Your task to perform on an android device: clear all cookies in the chrome app Image 0: 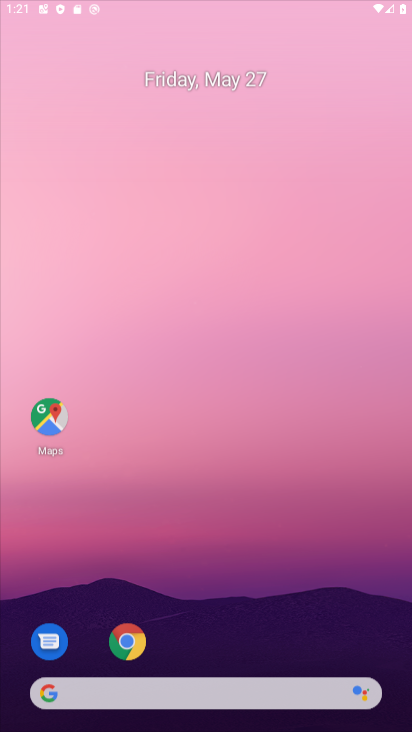
Step 0: click (171, 27)
Your task to perform on an android device: clear all cookies in the chrome app Image 1: 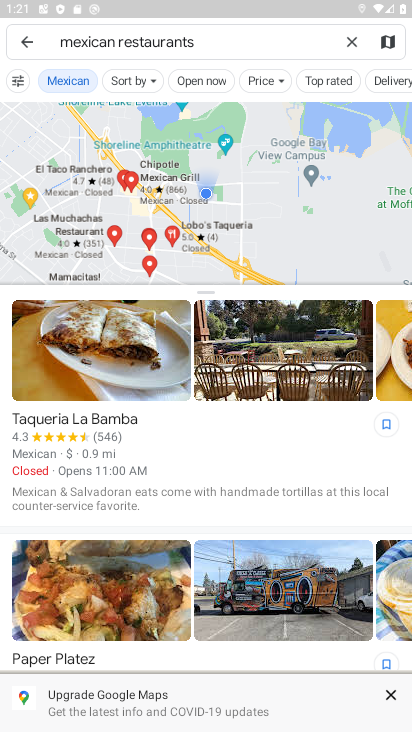
Step 1: press back button
Your task to perform on an android device: clear all cookies in the chrome app Image 2: 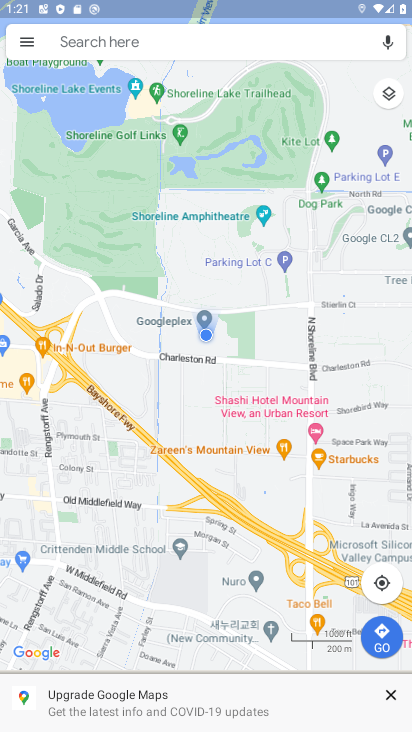
Step 2: press back button
Your task to perform on an android device: clear all cookies in the chrome app Image 3: 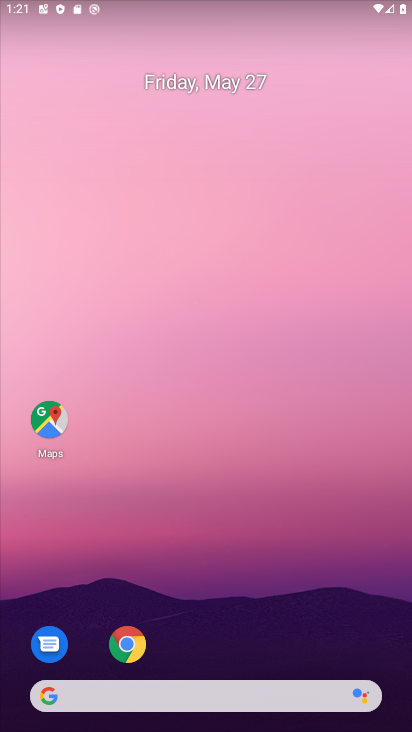
Step 3: drag from (210, 574) to (184, 12)
Your task to perform on an android device: clear all cookies in the chrome app Image 4: 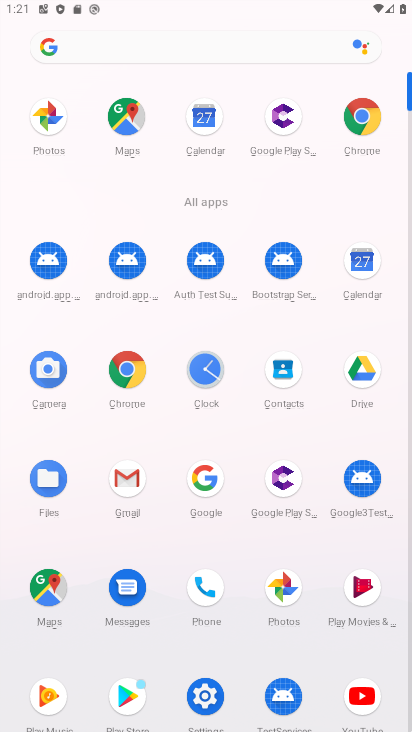
Step 4: click (362, 114)
Your task to perform on an android device: clear all cookies in the chrome app Image 5: 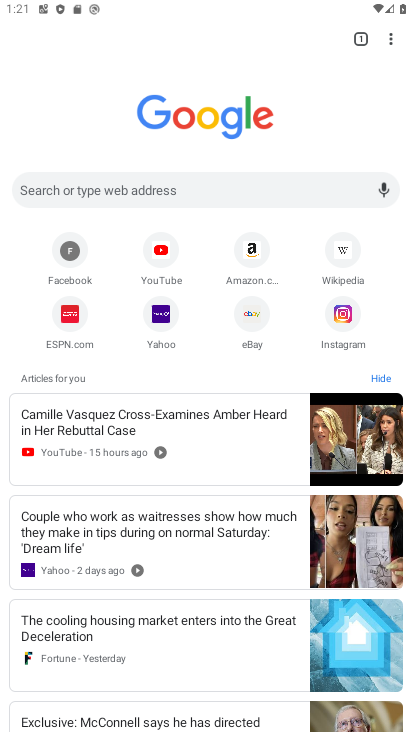
Step 5: drag from (389, 40) to (252, 328)
Your task to perform on an android device: clear all cookies in the chrome app Image 6: 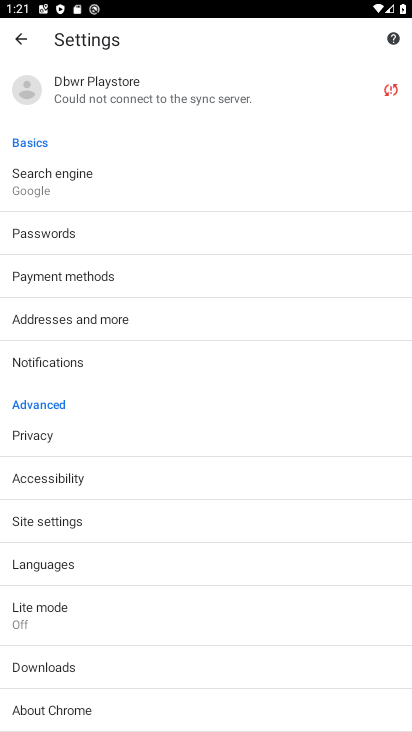
Step 6: drag from (175, 606) to (221, 184)
Your task to perform on an android device: clear all cookies in the chrome app Image 7: 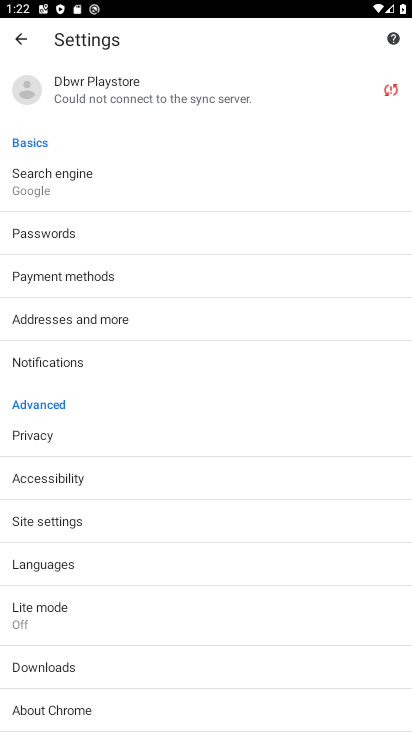
Step 7: click (51, 436)
Your task to perform on an android device: clear all cookies in the chrome app Image 8: 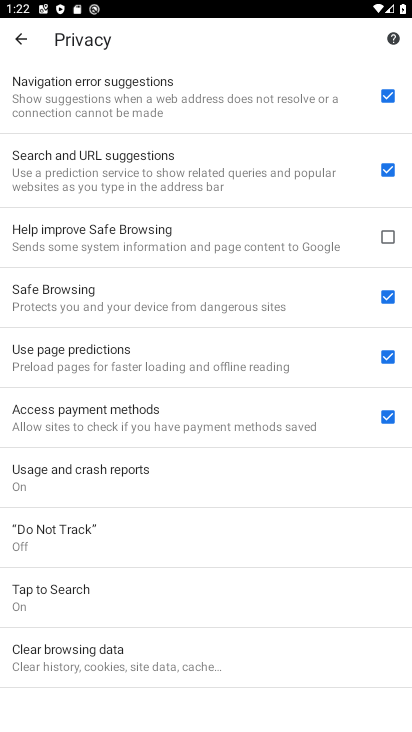
Step 8: drag from (272, 619) to (232, 138)
Your task to perform on an android device: clear all cookies in the chrome app Image 9: 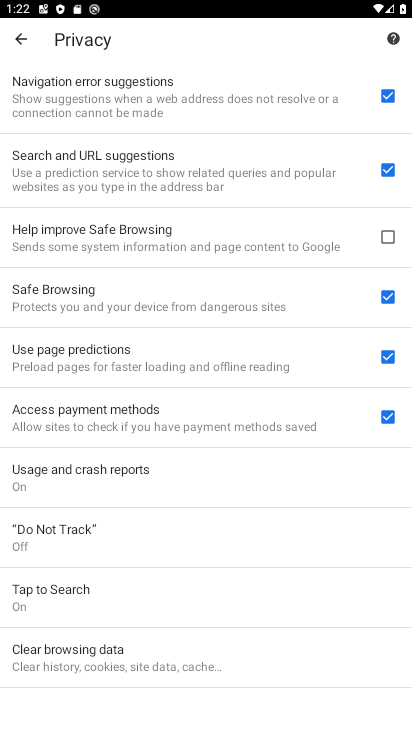
Step 9: click (122, 651)
Your task to perform on an android device: clear all cookies in the chrome app Image 10: 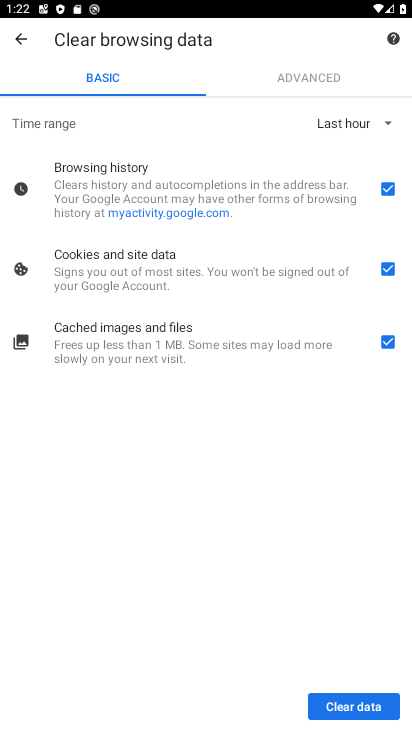
Step 10: click (383, 187)
Your task to perform on an android device: clear all cookies in the chrome app Image 11: 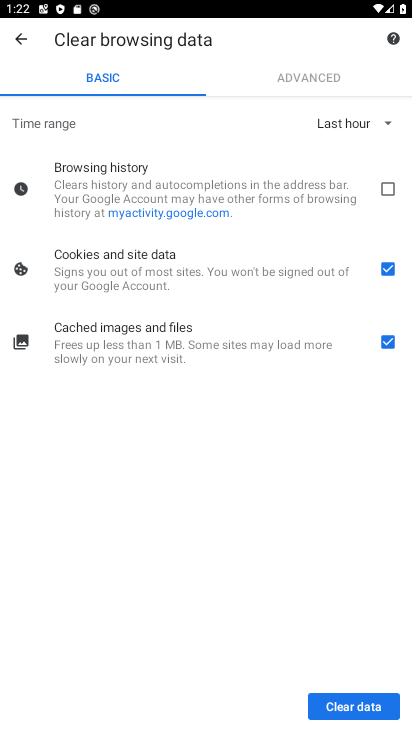
Step 11: click (390, 342)
Your task to perform on an android device: clear all cookies in the chrome app Image 12: 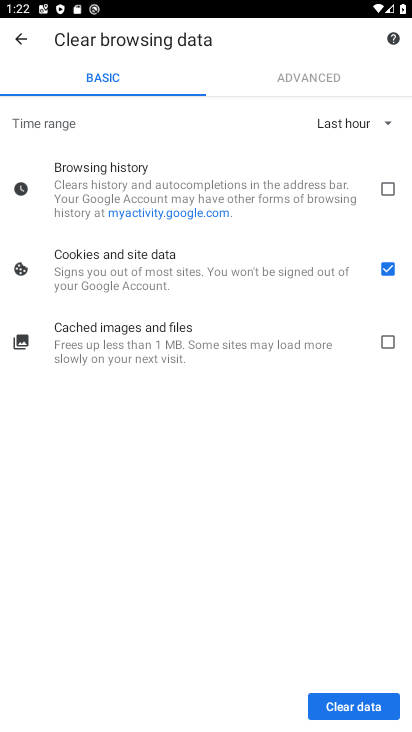
Step 12: click (362, 701)
Your task to perform on an android device: clear all cookies in the chrome app Image 13: 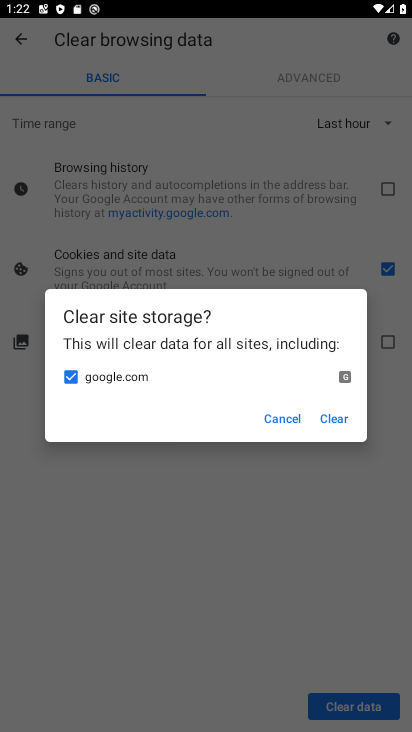
Step 13: click (336, 419)
Your task to perform on an android device: clear all cookies in the chrome app Image 14: 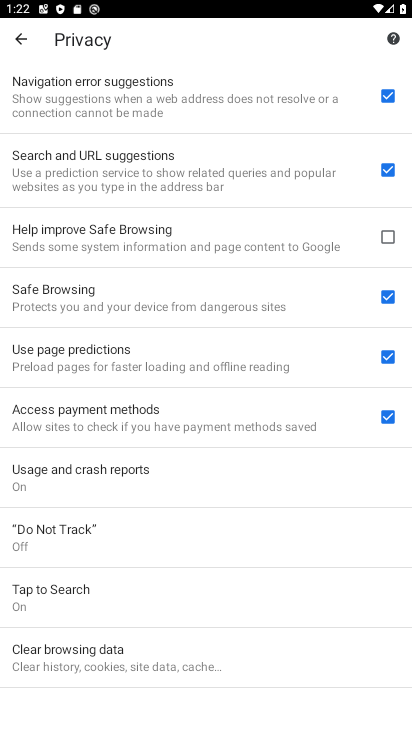
Step 14: task complete